Your task to perform on an android device: Go to Android settings Image 0: 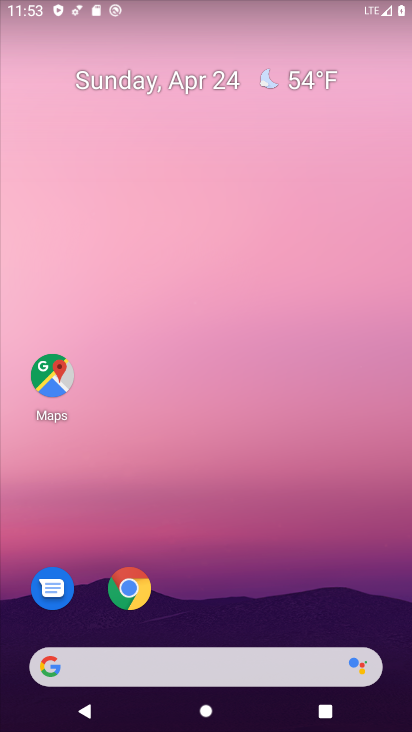
Step 0: click (327, 560)
Your task to perform on an android device: Go to Android settings Image 1: 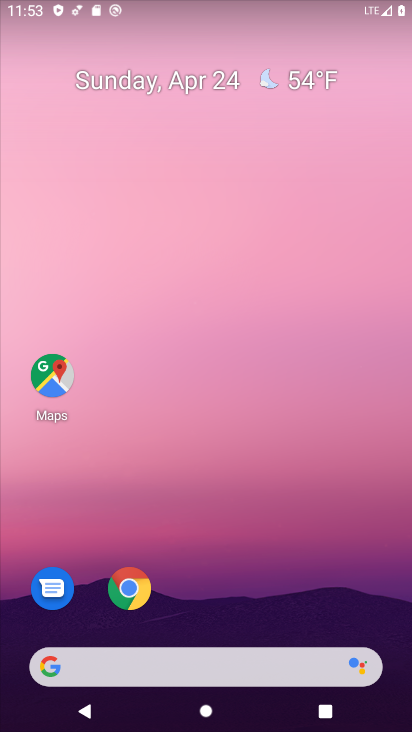
Step 1: drag from (217, 632) to (278, 1)
Your task to perform on an android device: Go to Android settings Image 2: 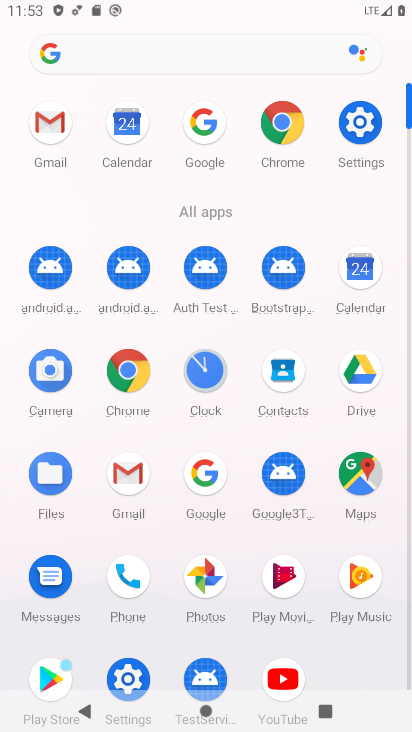
Step 2: click (124, 677)
Your task to perform on an android device: Go to Android settings Image 3: 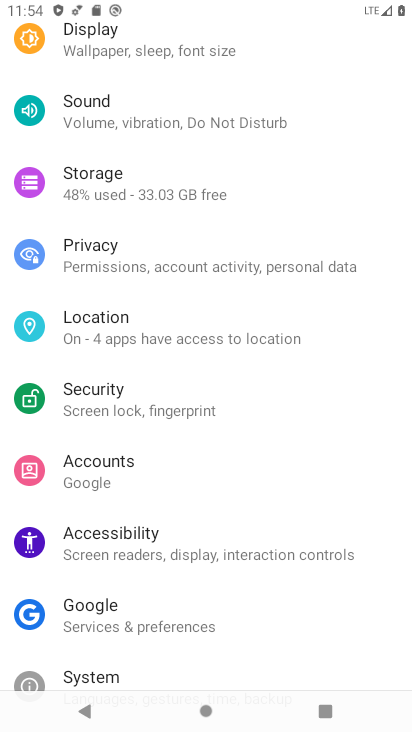
Step 3: task complete